Your task to perform on an android device: Open CNN.com Image 0: 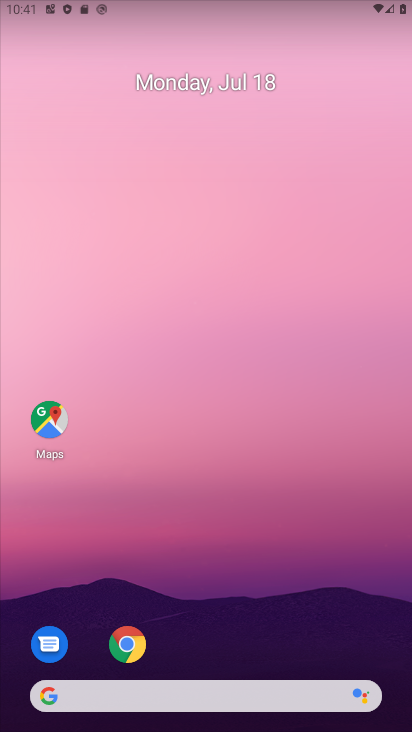
Step 0: click (239, 68)
Your task to perform on an android device: Open CNN.com Image 1: 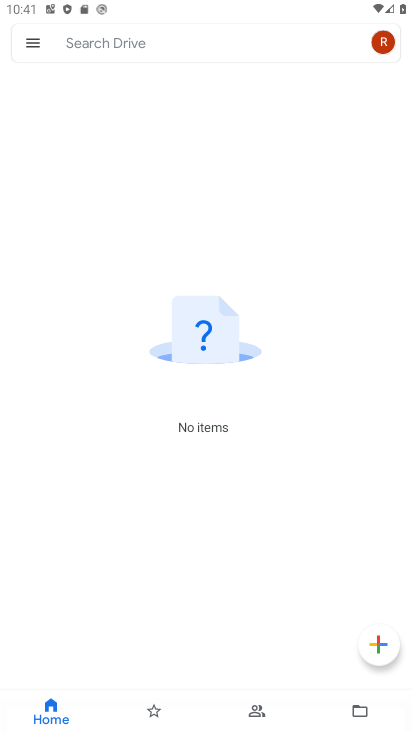
Step 1: press home button
Your task to perform on an android device: Open CNN.com Image 2: 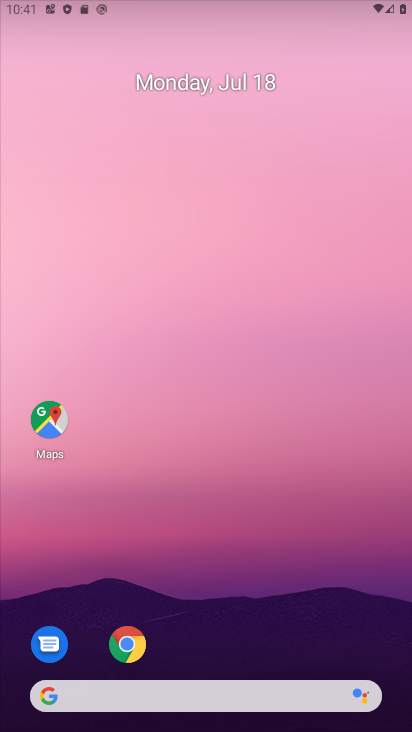
Step 2: drag from (209, 667) to (221, 163)
Your task to perform on an android device: Open CNN.com Image 3: 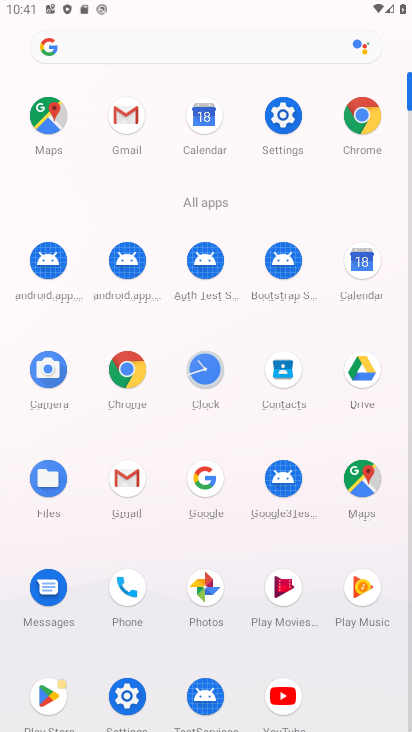
Step 3: click (205, 474)
Your task to perform on an android device: Open CNN.com Image 4: 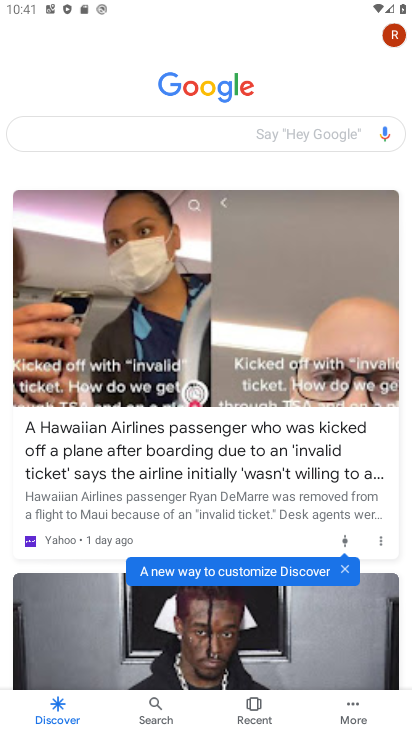
Step 4: click (182, 127)
Your task to perform on an android device: Open CNN.com Image 5: 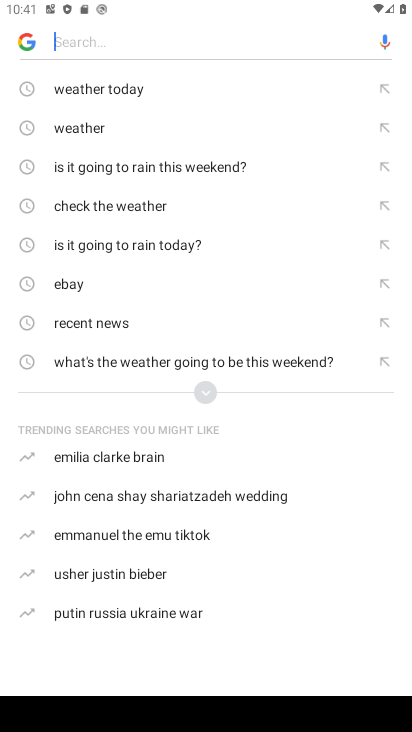
Step 5: type "cnn.com"
Your task to perform on an android device: Open CNN.com Image 6: 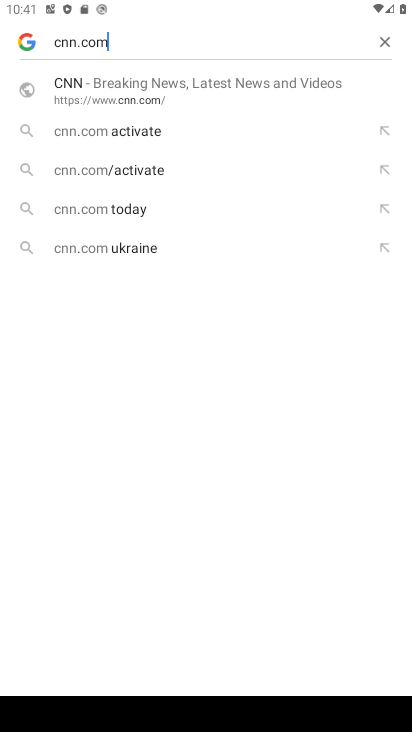
Step 6: click (123, 81)
Your task to perform on an android device: Open CNN.com Image 7: 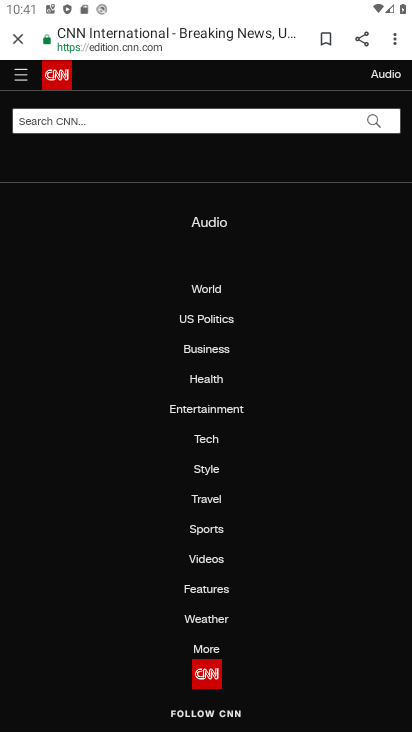
Step 7: task complete